Your task to perform on an android device: see sites visited before in the chrome app Image 0: 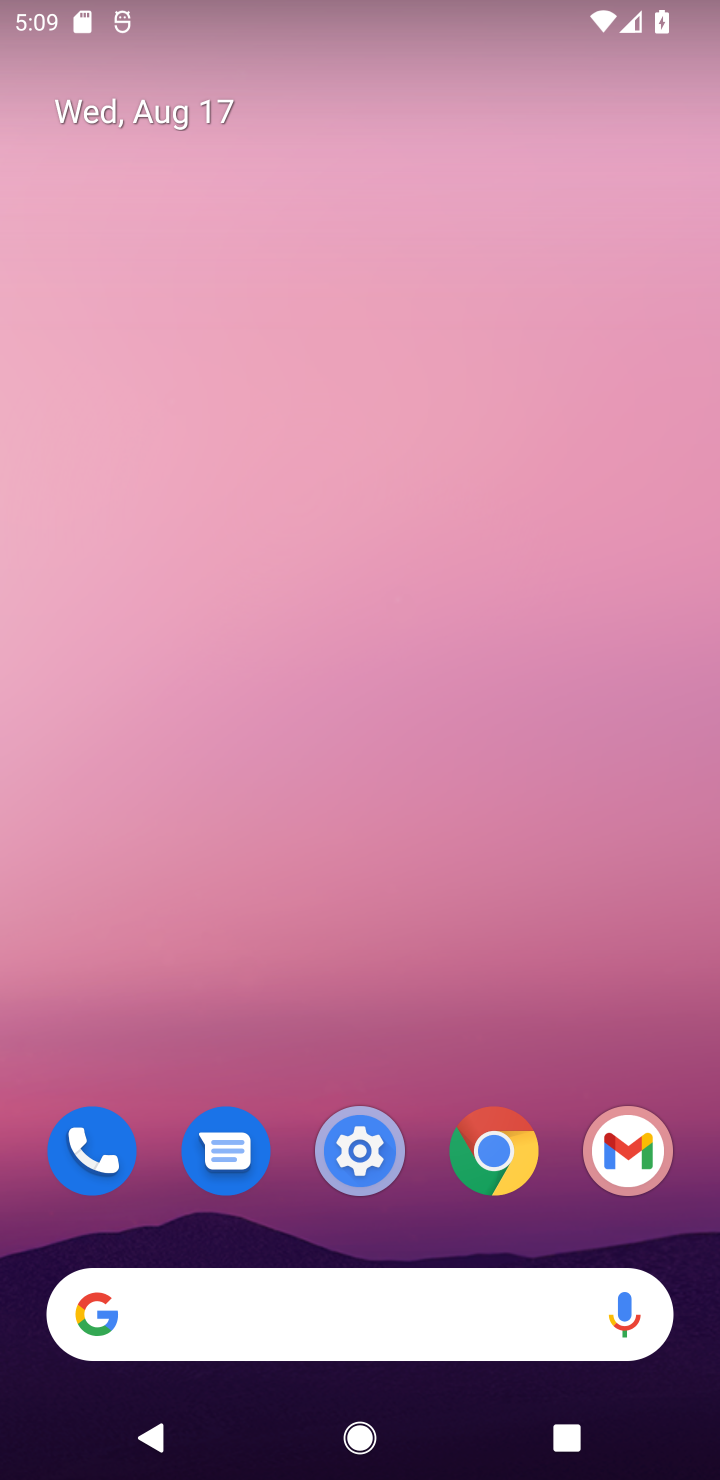
Step 0: click (459, 1176)
Your task to perform on an android device: see sites visited before in the chrome app Image 1: 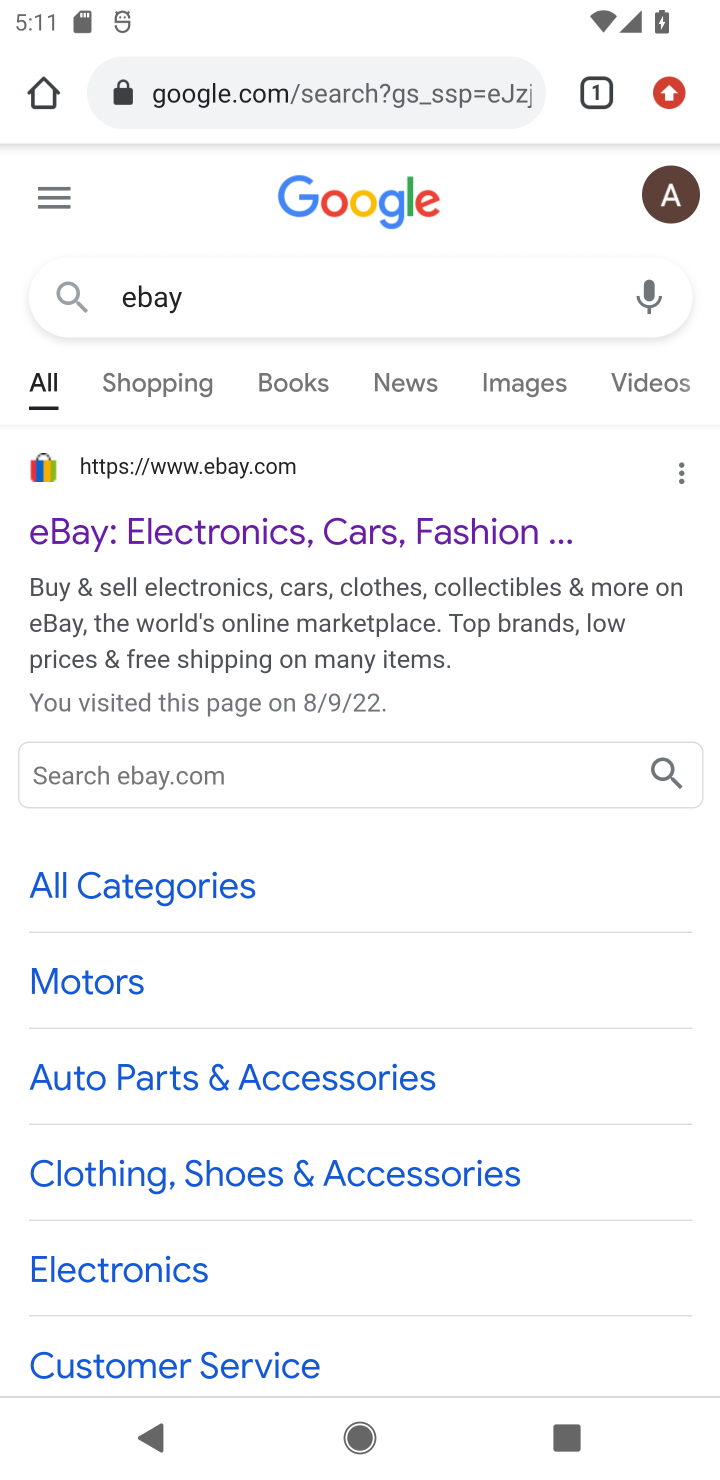
Step 1: task complete